Your task to perform on an android device: delete a single message in the gmail app Image 0: 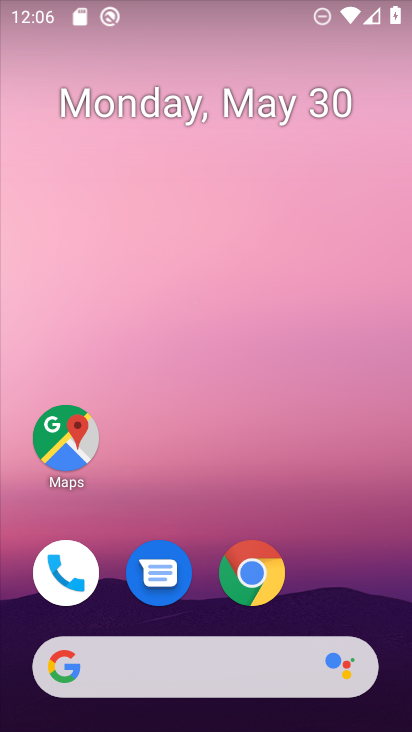
Step 0: press home button
Your task to perform on an android device: delete a single message in the gmail app Image 1: 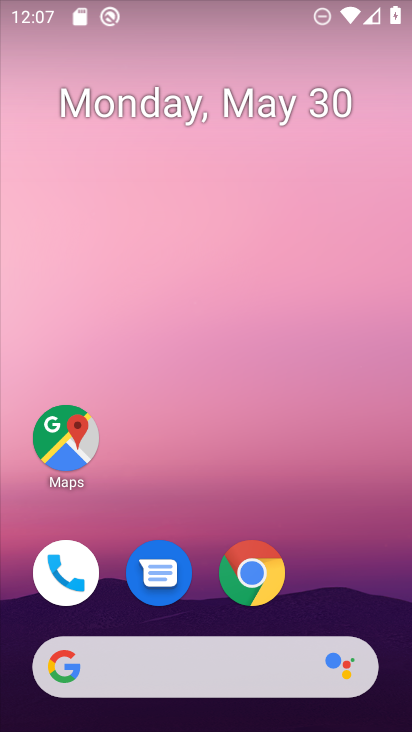
Step 1: drag from (325, 621) to (288, 275)
Your task to perform on an android device: delete a single message in the gmail app Image 2: 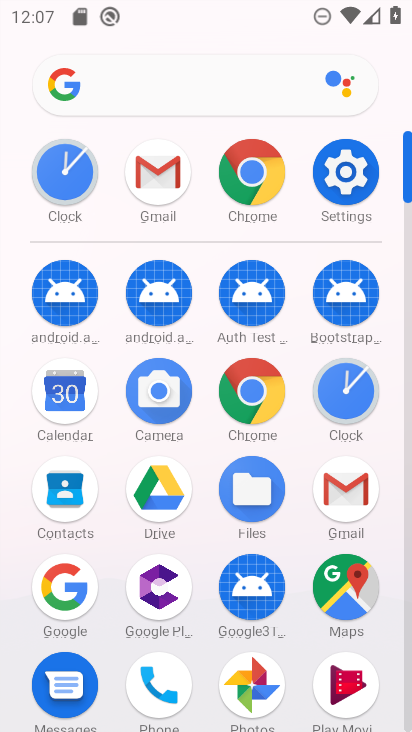
Step 2: click (157, 184)
Your task to perform on an android device: delete a single message in the gmail app Image 3: 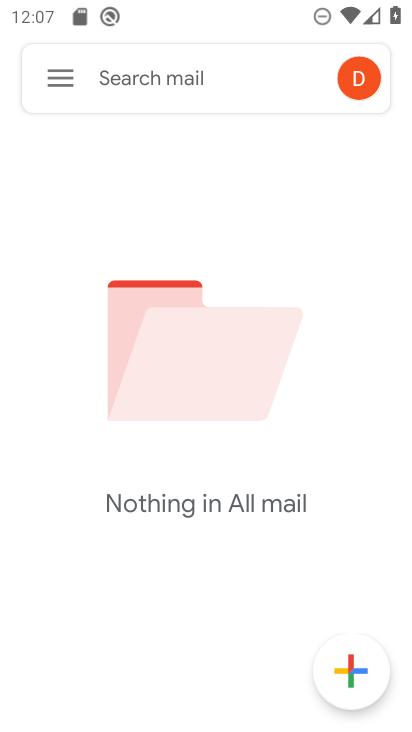
Step 3: click (59, 80)
Your task to perform on an android device: delete a single message in the gmail app Image 4: 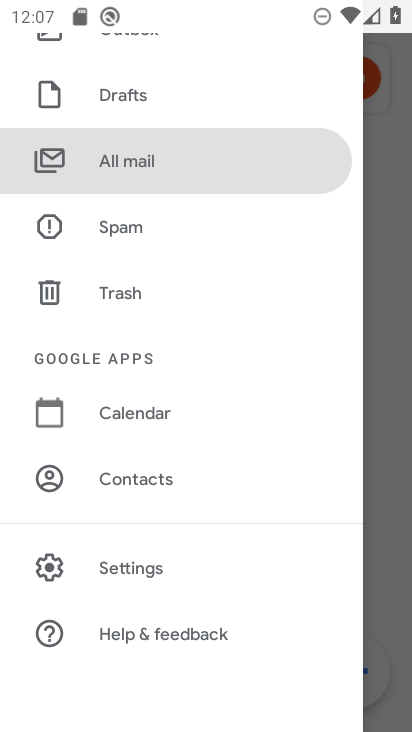
Step 4: click (139, 172)
Your task to perform on an android device: delete a single message in the gmail app Image 5: 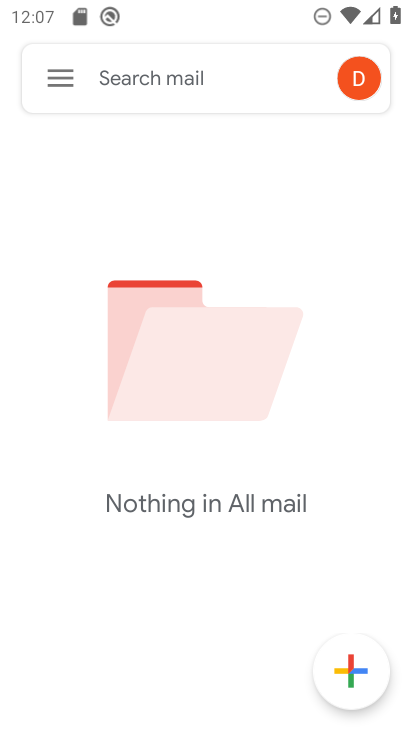
Step 5: task complete